Your task to perform on an android device: turn off wifi Image 0: 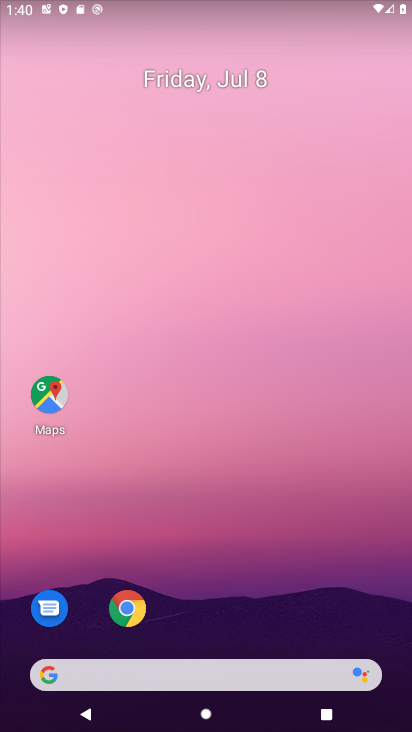
Step 0: drag from (386, 626) to (299, 36)
Your task to perform on an android device: turn off wifi Image 1: 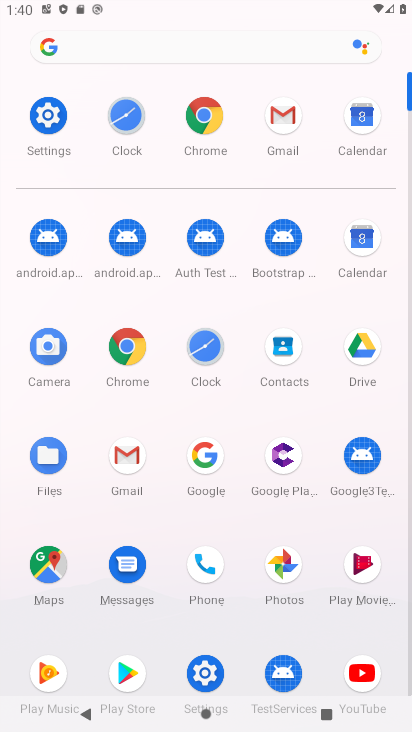
Step 1: click (203, 675)
Your task to perform on an android device: turn off wifi Image 2: 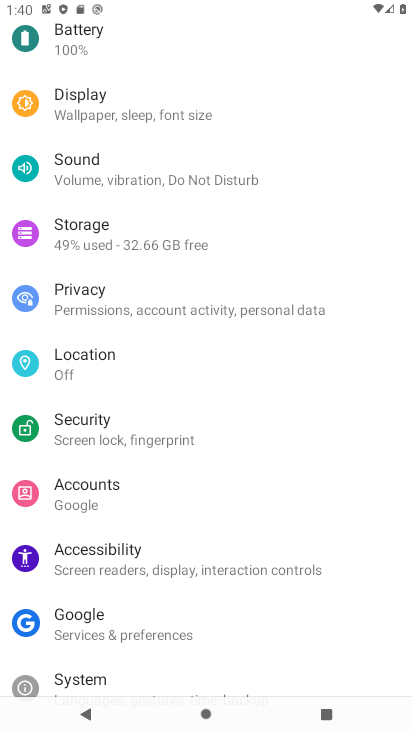
Step 2: drag from (305, 68) to (286, 342)
Your task to perform on an android device: turn off wifi Image 3: 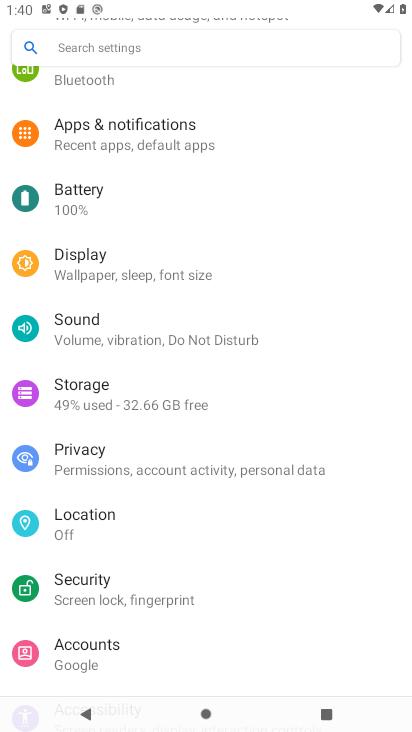
Step 3: drag from (274, 180) to (286, 428)
Your task to perform on an android device: turn off wifi Image 4: 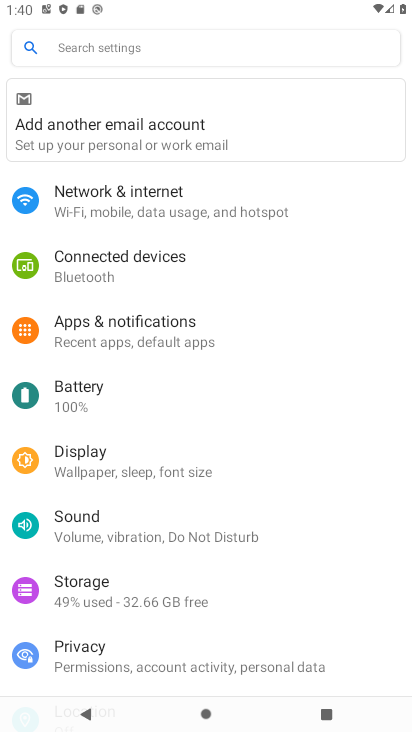
Step 4: click (105, 202)
Your task to perform on an android device: turn off wifi Image 5: 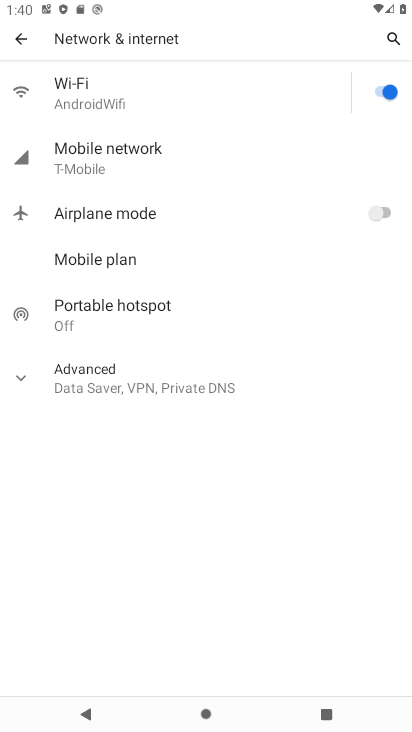
Step 5: click (376, 86)
Your task to perform on an android device: turn off wifi Image 6: 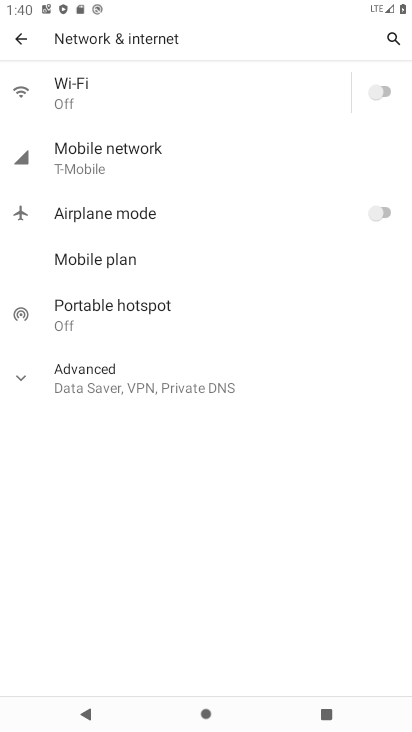
Step 6: task complete